Your task to perform on an android device: change the clock display to digital Image 0: 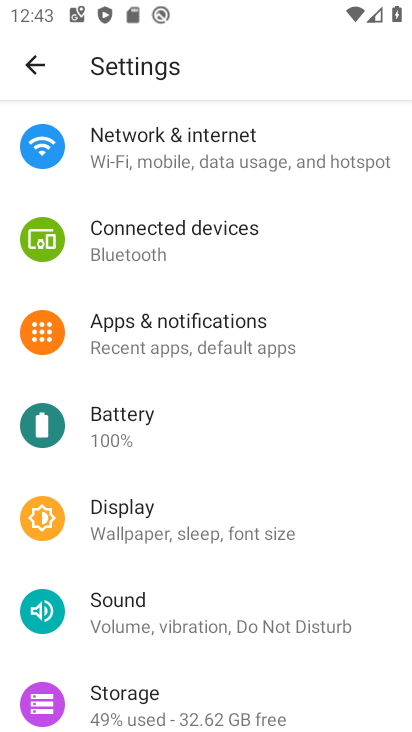
Step 0: press home button
Your task to perform on an android device: change the clock display to digital Image 1: 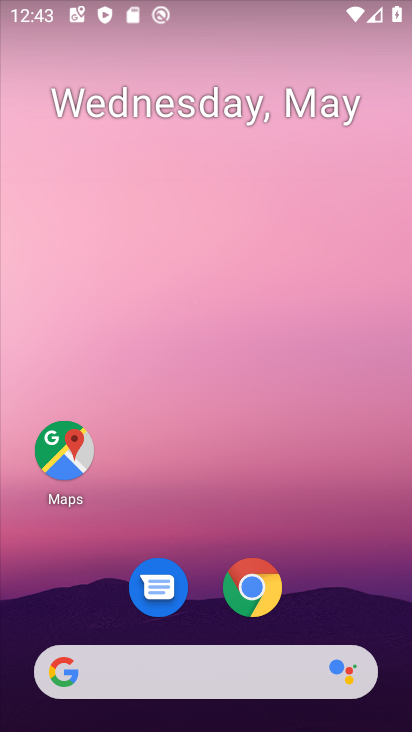
Step 1: drag from (367, 606) to (378, 229)
Your task to perform on an android device: change the clock display to digital Image 2: 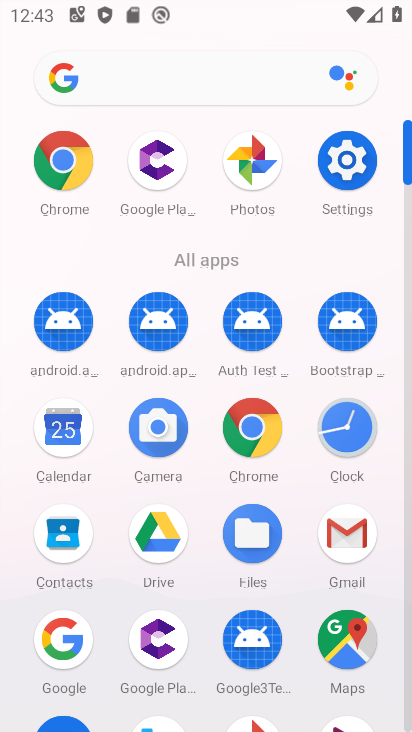
Step 2: click (346, 434)
Your task to perform on an android device: change the clock display to digital Image 3: 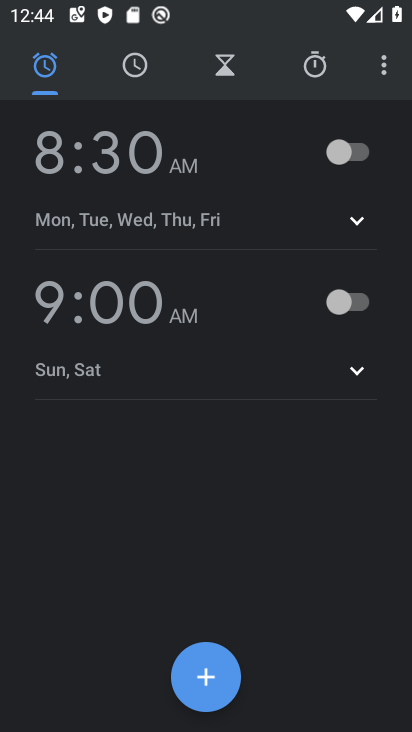
Step 3: click (383, 75)
Your task to perform on an android device: change the clock display to digital Image 4: 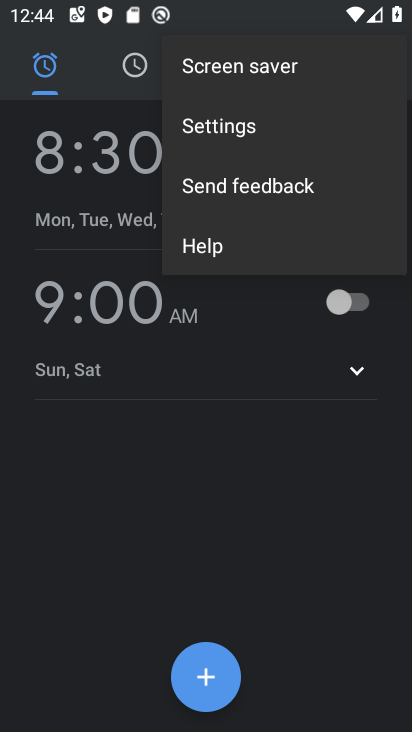
Step 4: click (286, 127)
Your task to perform on an android device: change the clock display to digital Image 5: 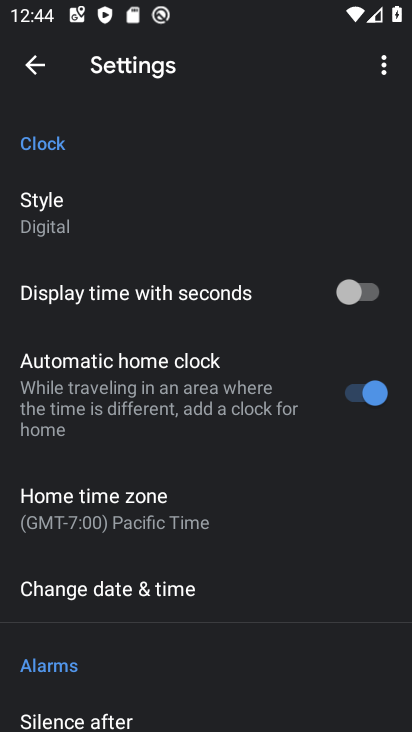
Step 5: task complete